Your task to perform on an android device: Go to Yahoo.com Image 0: 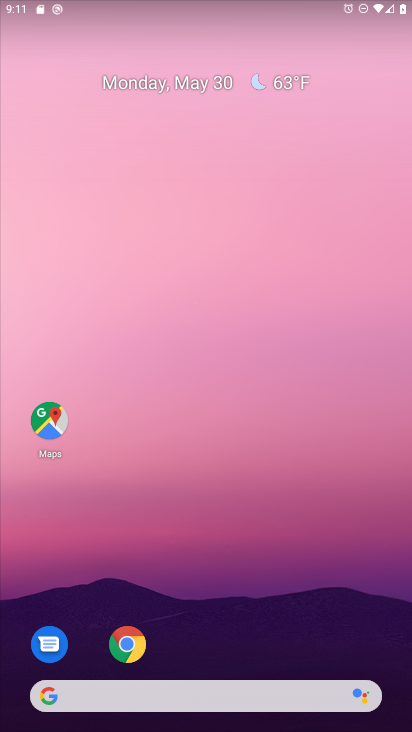
Step 0: click (129, 643)
Your task to perform on an android device: Go to Yahoo.com Image 1: 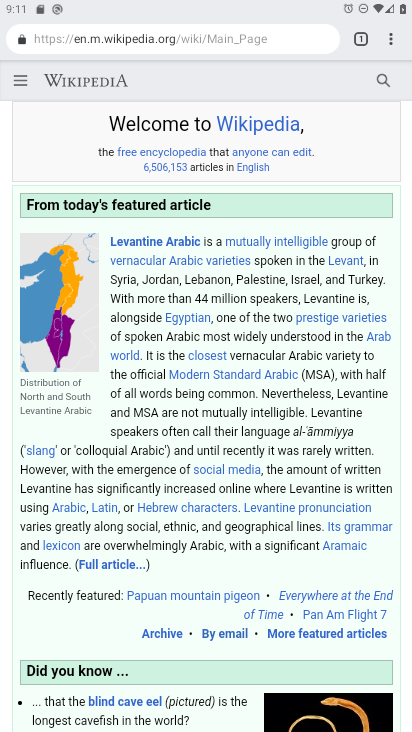
Step 1: click (384, 38)
Your task to perform on an android device: Go to Yahoo.com Image 2: 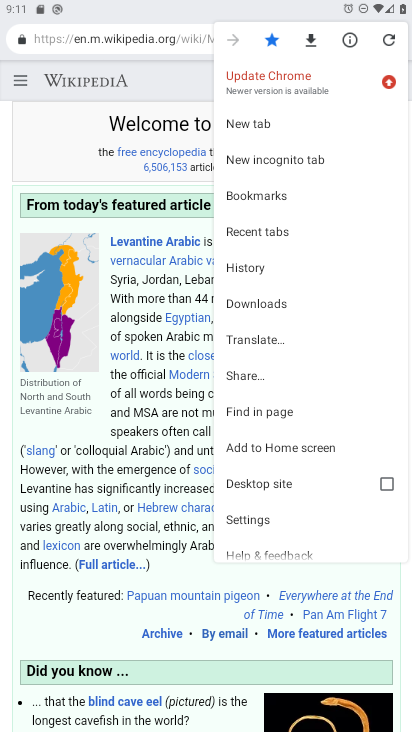
Step 2: task complete